Your task to perform on an android device: Toggle the flashlight Image 0: 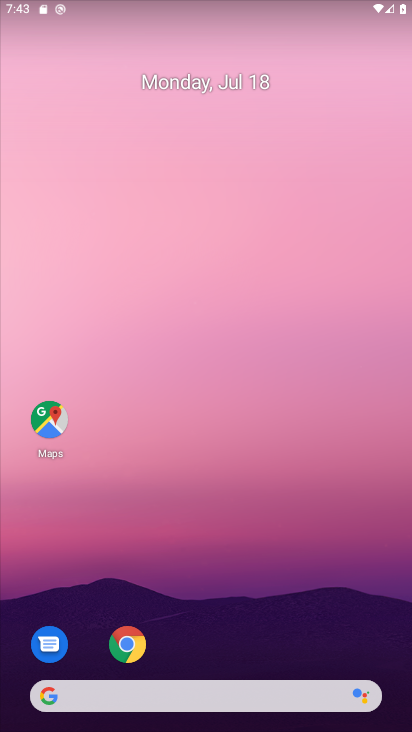
Step 0: drag from (282, 661) to (267, 148)
Your task to perform on an android device: Toggle the flashlight Image 1: 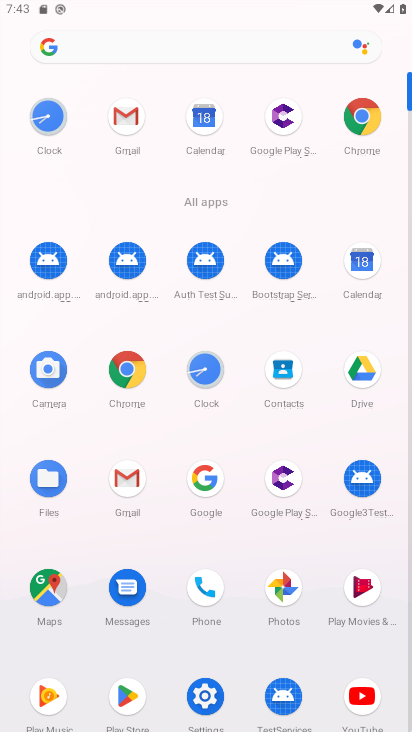
Step 1: click (207, 690)
Your task to perform on an android device: Toggle the flashlight Image 2: 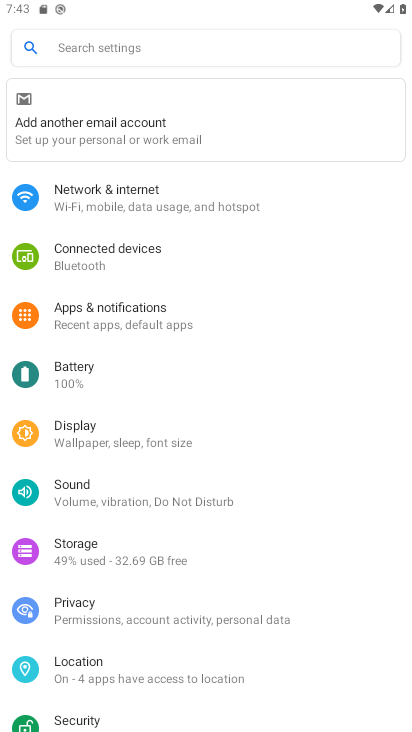
Step 2: click (157, 298)
Your task to perform on an android device: Toggle the flashlight Image 3: 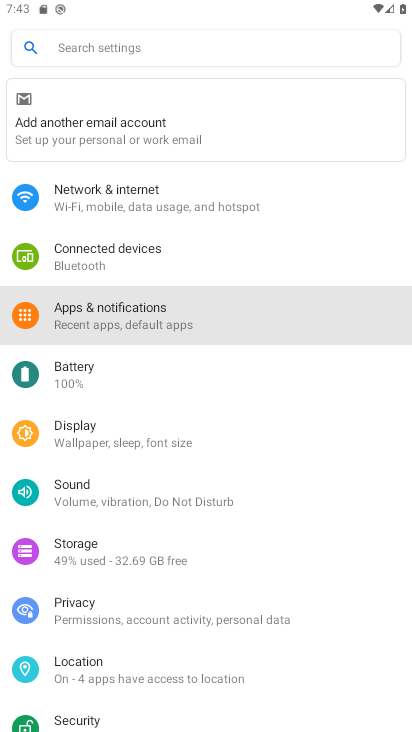
Step 3: task complete